Your task to perform on an android device: Go to Maps Image 0: 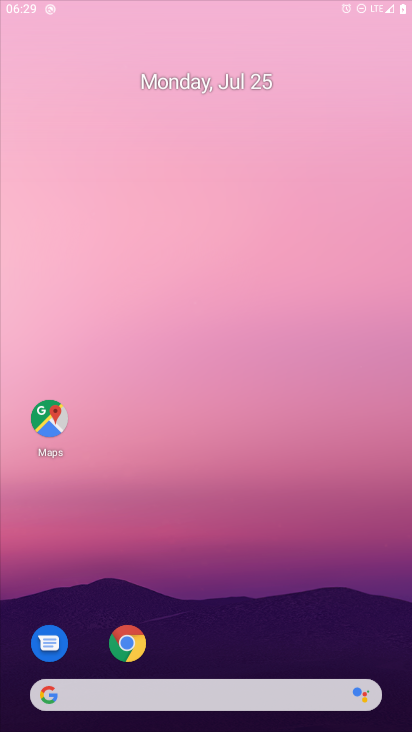
Step 0: press home button
Your task to perform on an android device: Go to Maps Image 1: 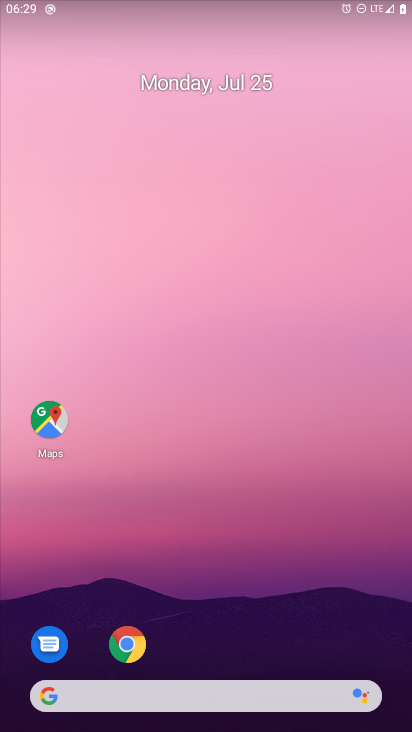
Step 1: drag from (252, 640) to (218, 106)
Your task to perform on an android device: Go to Maps Image 2: 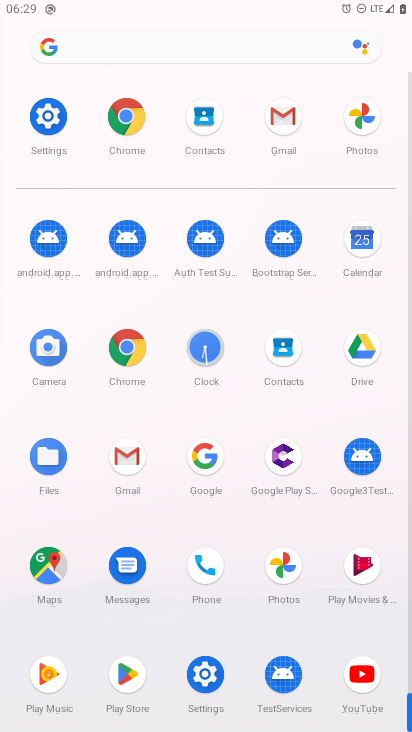
Step 2: click (47, 573)
Your task to perform on an android device: Go to Maps Image 3: 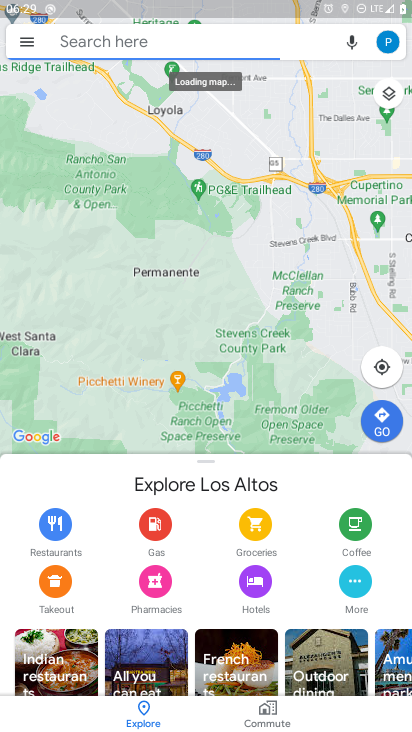
Step 3: task complete